Your task to perform on an android device: empty trash in google photos Image 0: 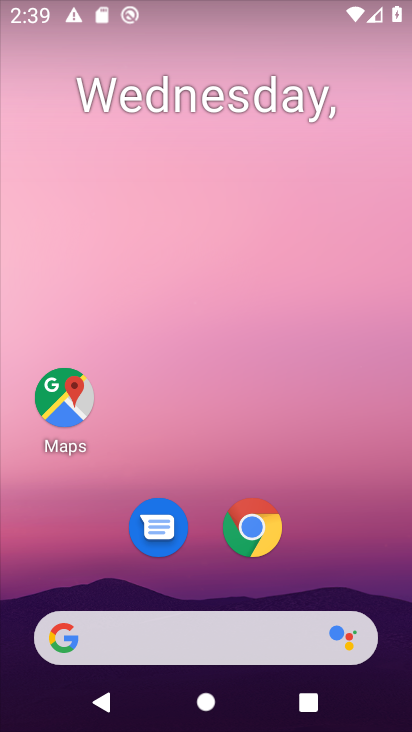
Step 0: drag from (206, 494) to (253, 144)
Your task to perform on an android device: empty trash in google photos Image 1: 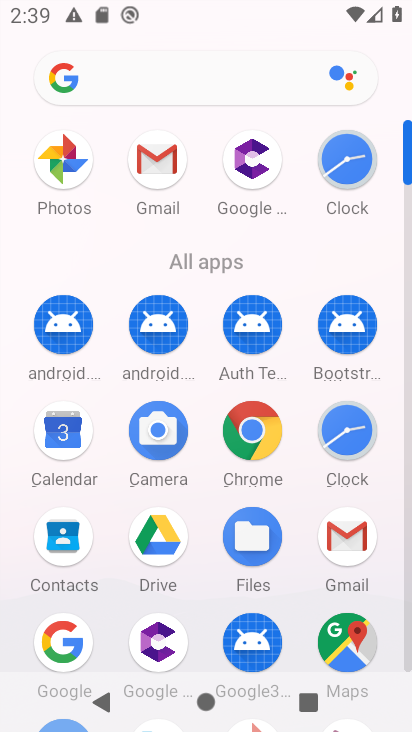
Step 1: drag from (292, 586) to (322, 221)
Your task to perform on an android device: empty trash in google photos Image 2: 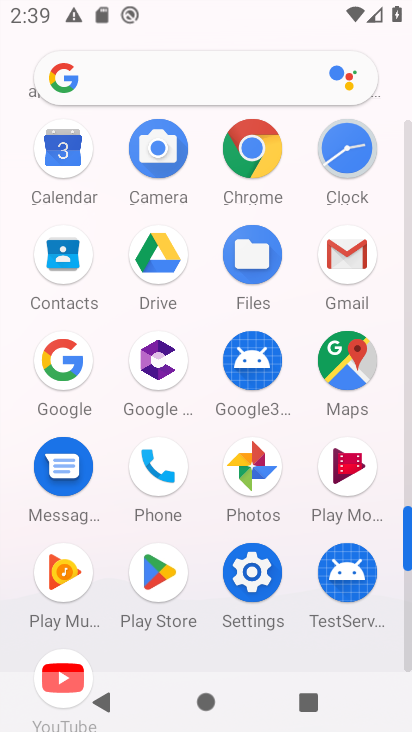
Step 2: click (269, 466)
Your task to perform on an android device: empty trash in google photos Image 3: 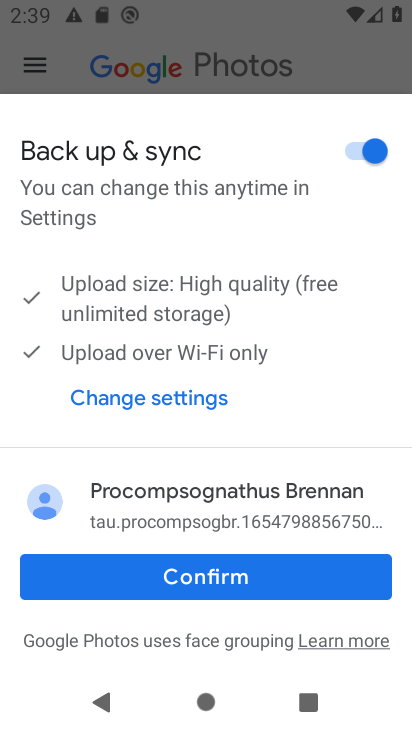
Step 3: click (274, 570)
Your task to perform on an android device: empty trash in google photos Image 4: 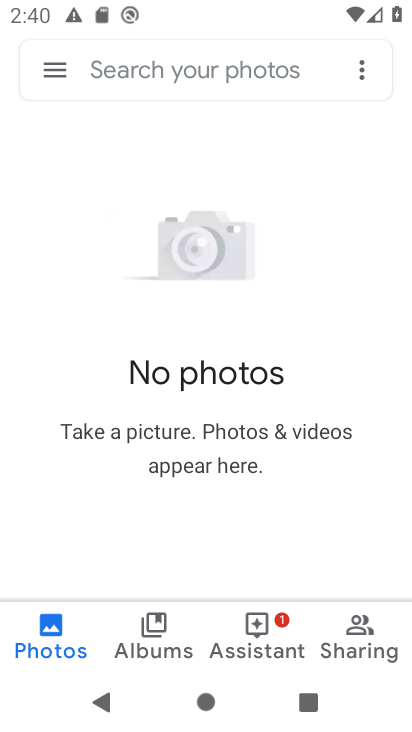
Step 4: click (41, 71)
Your task to perform on an android device: empty trash in google photos Image 5: 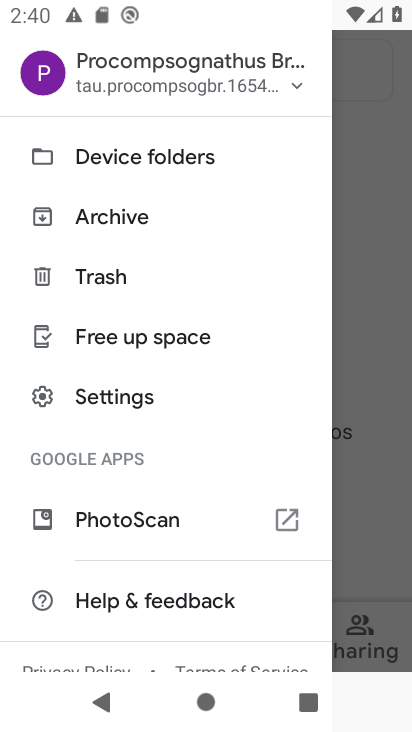
Step 5: click (117, 268)
Your task to perform on an android device: empty trash in google photos Image 6: 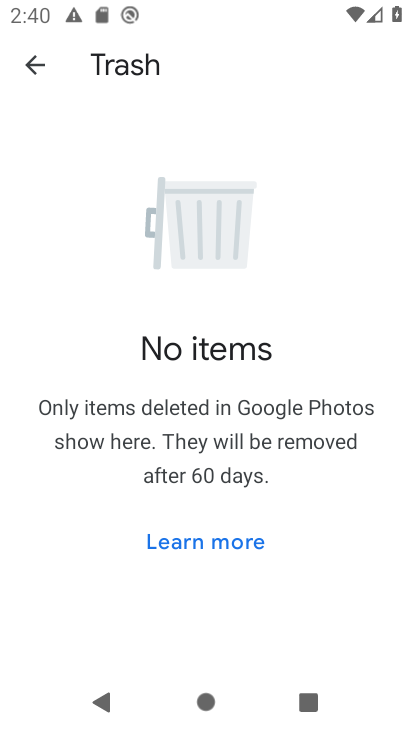
Step 6: task complete